Your task to perform on an android device: Do I have any events this weekend? Image 0: 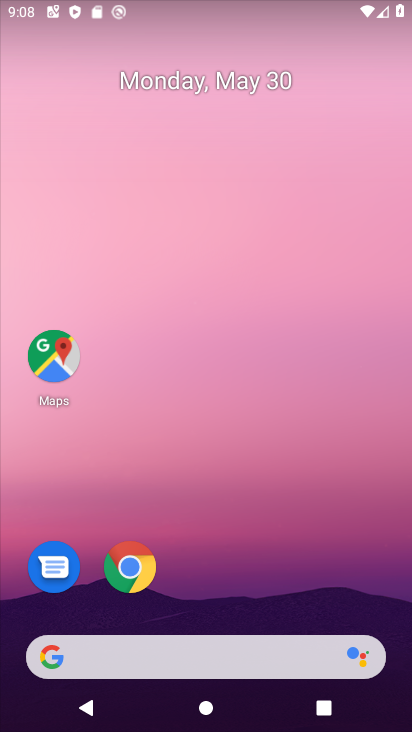
Step 0: drag from (182, 611) to (276, 4)
Your task to perform on an android device: Do I have any events this weekend? Image 1: 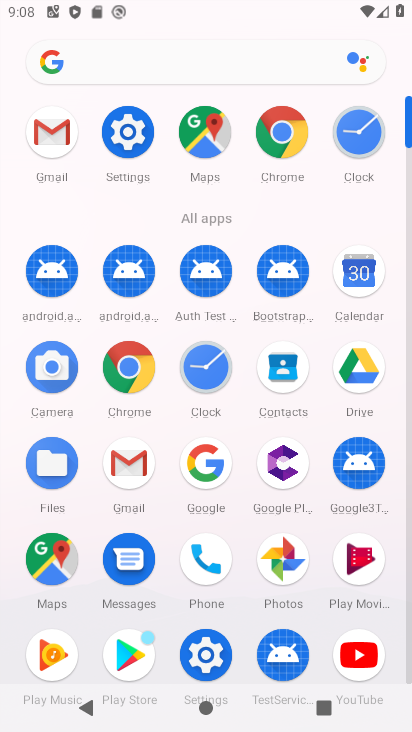
Step 1: click (364, 269)
Your task to perform on an android device: Do I have any events this weekend? Image 2: 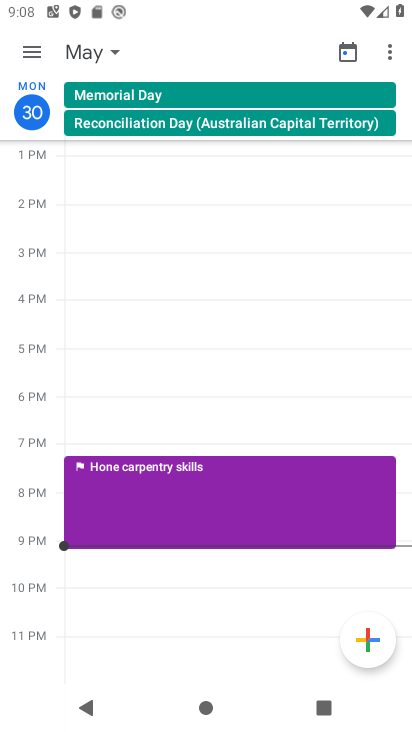
Step 2: click (98, 54)
Your task to perform on an android device: Do I have any events this weekend? Image 3: 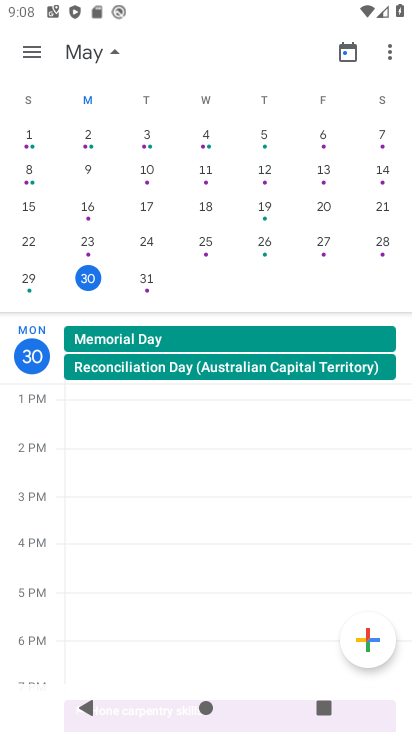
Step 3: drag from (392, 292) to (39, 265)
Your task to perform on an android device: Do I have any events this weekend? Image 4: 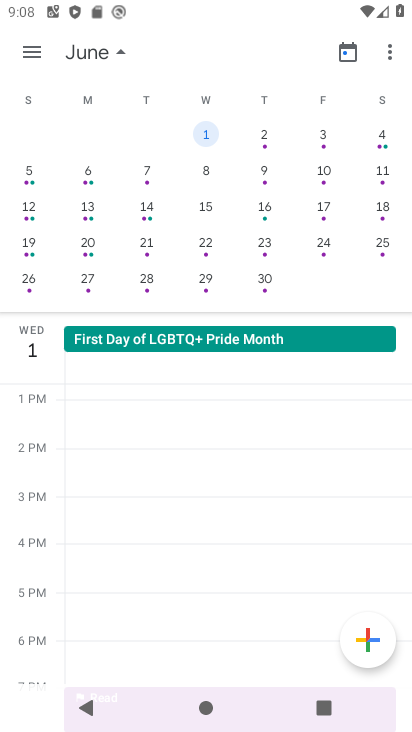
Step 4: click (381, 130)
Your task to perform on an android device: Do I have any events this weekend? Image 5: 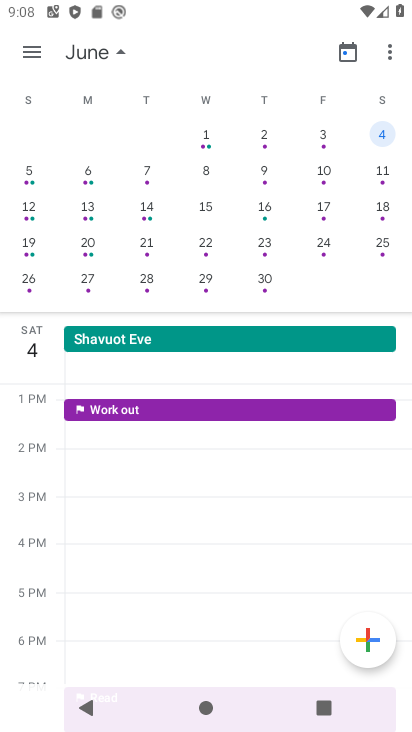
Step 5: task complete